Your task to perform on an android device: Search for pizza restaurants on Maps Image 0: 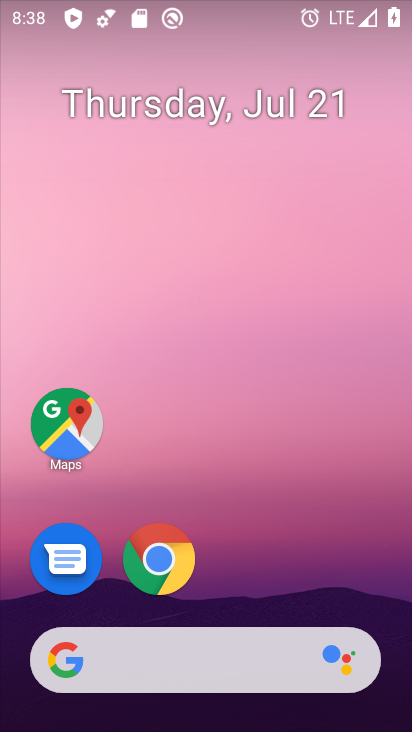
Step 0: drag from (361, 550) to (384, 201)
Your task to perform on an android device: Search for pizza restaurants on Maps Image 1: 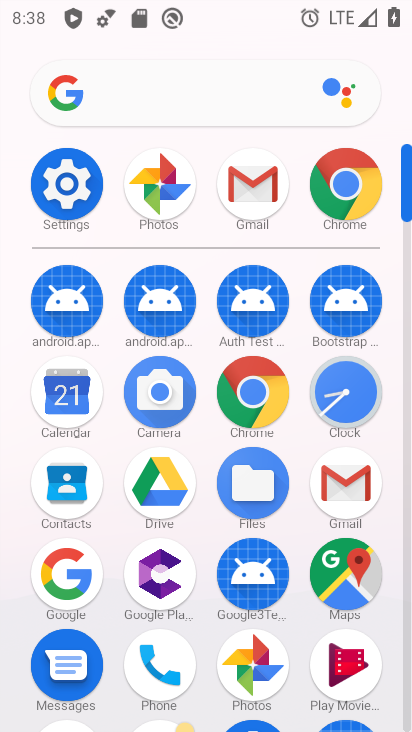
Step 1: click (341, 567)
Your task to perform on an android device: Search for pizza restaurants on Maps Image 2: 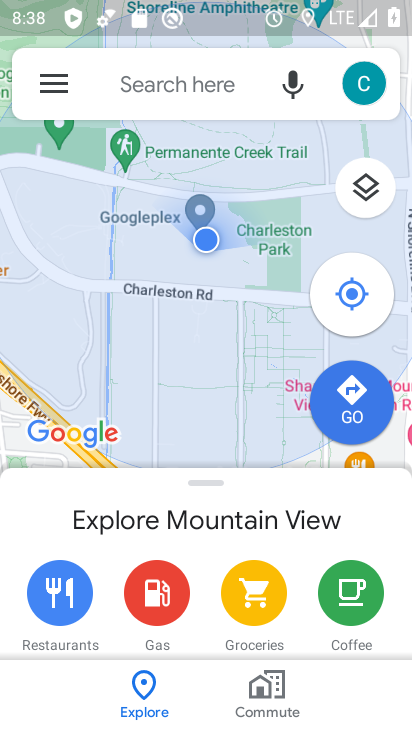
Step 2: click (171, 96)
Your task to perform on an android device: Search for pizza restaurants on Maps Image 3: 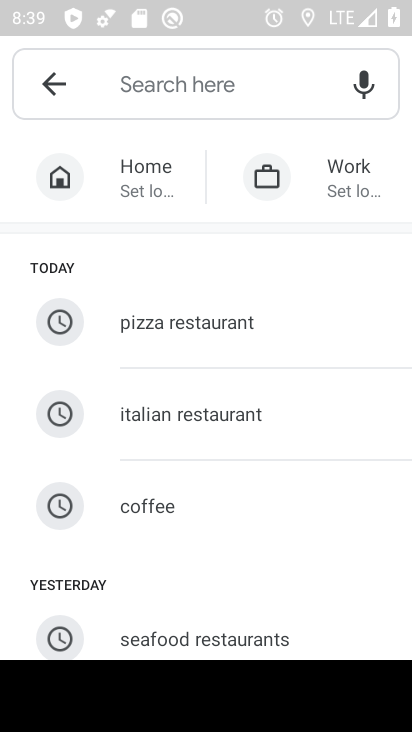
Step 3: type "pizza restaurants"
Your task to perform on an android device: Search for pizza restaurants on Maps Image 4: 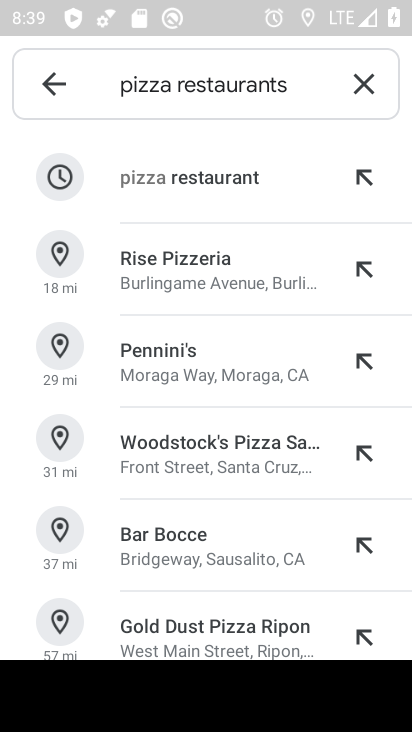
Step 4: click (266, 189)
Your task to perform on an android device: Search for pizza restaurants on Maps Image 5: 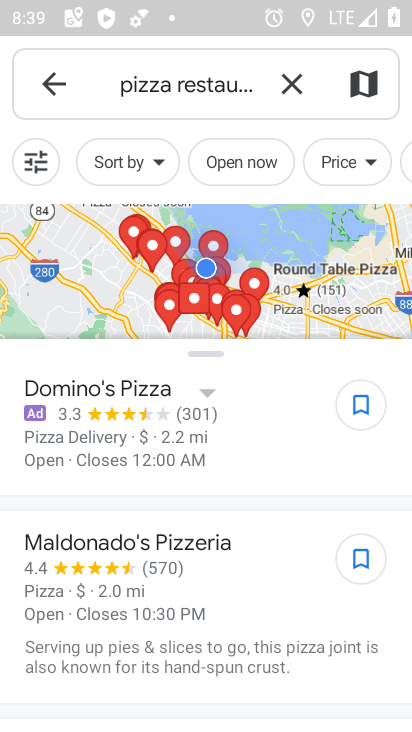
Step 5: task complete